Your task to perform on an android device: Go to ESPN.com Image 0: 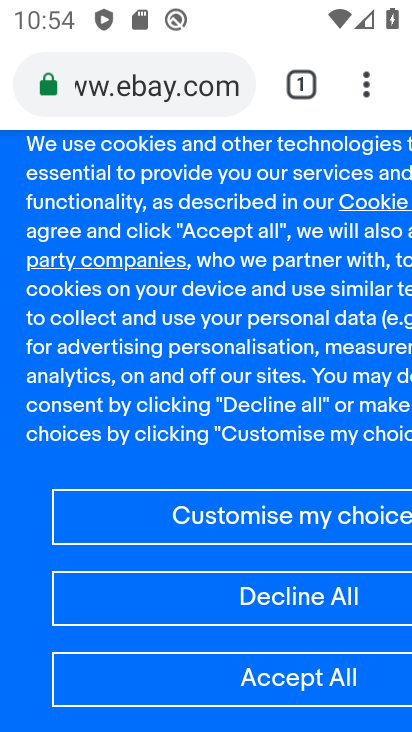
Step 0: press home button
Your task to perform on an android device: Go to ESPN.com Image 1: 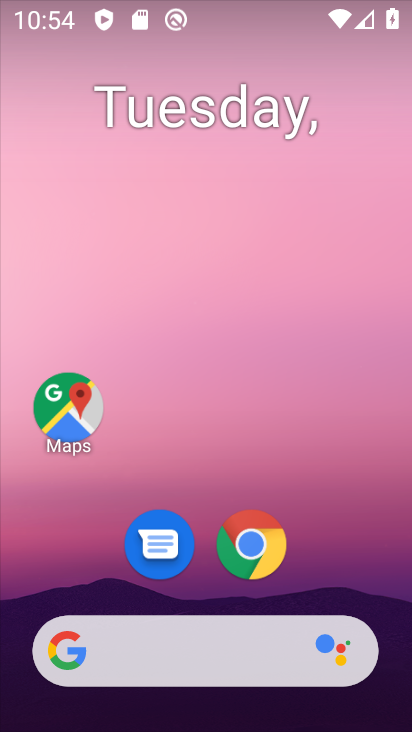
Step 1: drag from (394, 641) to (265, 9)
Your task to perform on an android device: Go to ESPN.com Image 2: 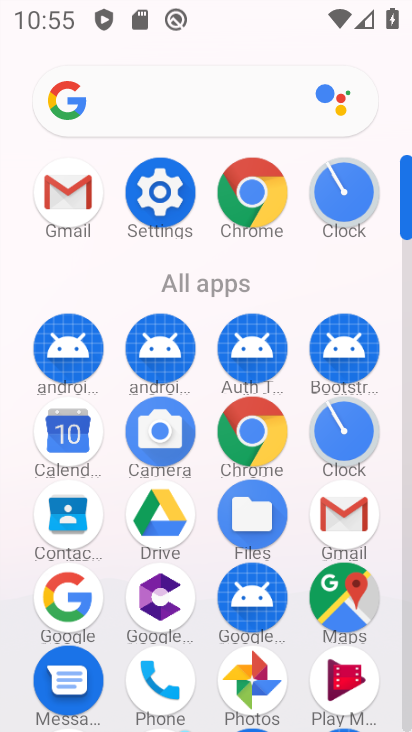
Step 2: click (246, 437)
Your task to perform on an android device: Go to ESPN.com Image 3: 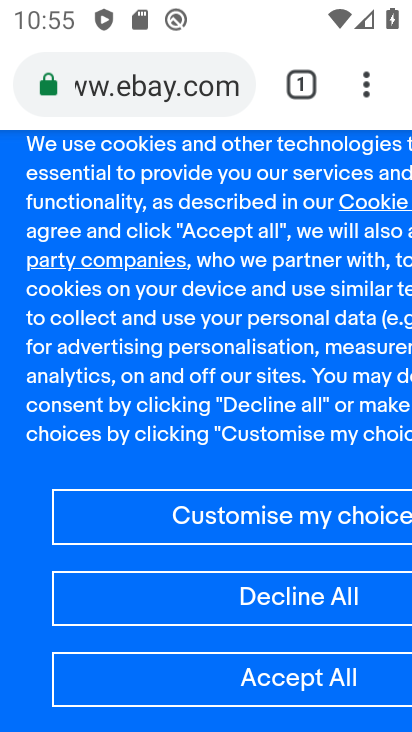
Step 3: press back button
Your task to perform on an android device: Go to ESPN.com Image 4: 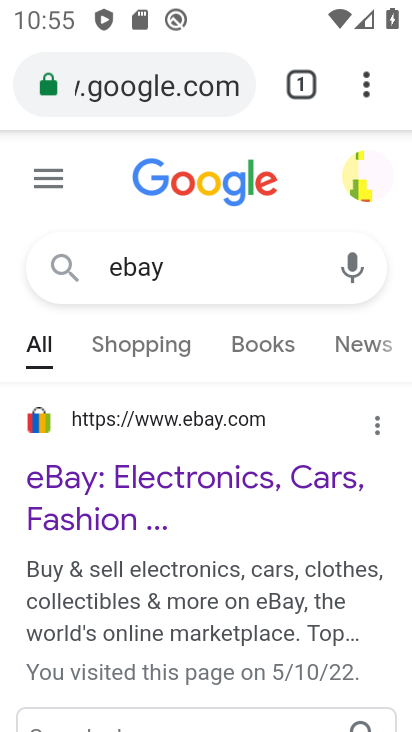
Step 4: press back button
Your task to perform on an android device: Go to ESPN.com Image 5: 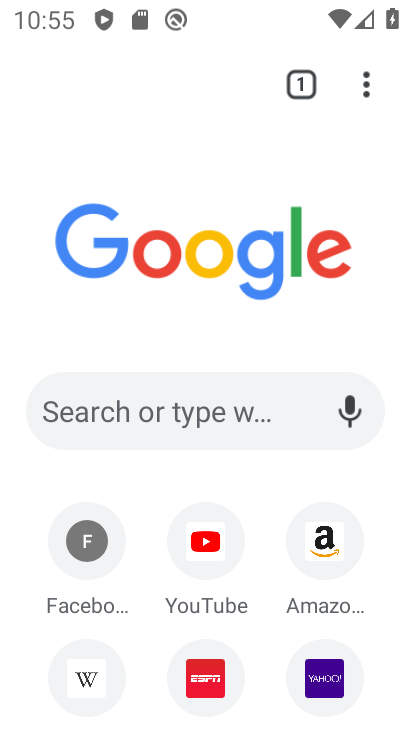
Step 5: click (191, 666)
Your task to perform on an android device: Go to ESPN.com Image 6: 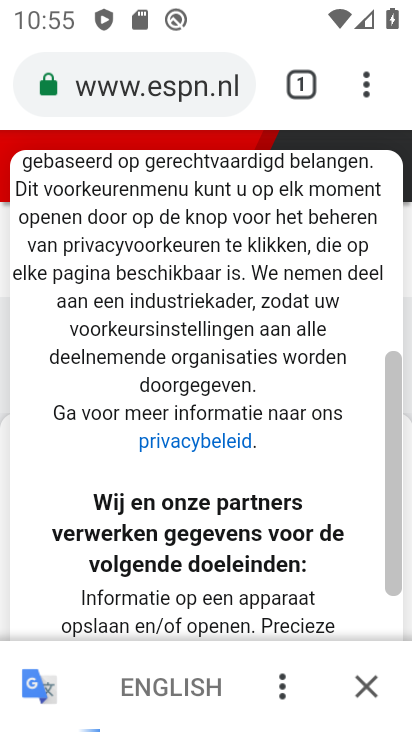
Step 6: task complete